Your task to perform on an android device: Open CNN.com Image 0: 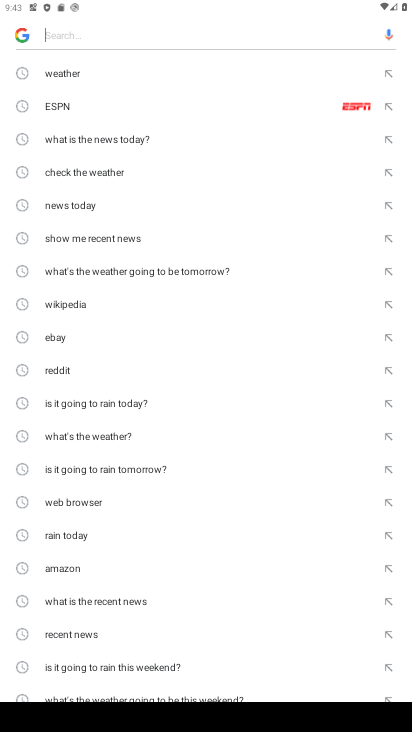
Step 0: press home button
Your task to perform on an android device: Open CNN.com Image 1: 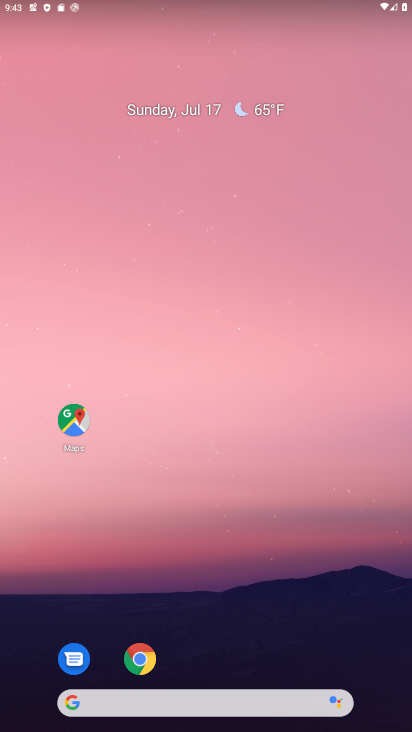
Step 1: click (185, 712)
Your task to perform on an android device: Open CNN.com Image 2: 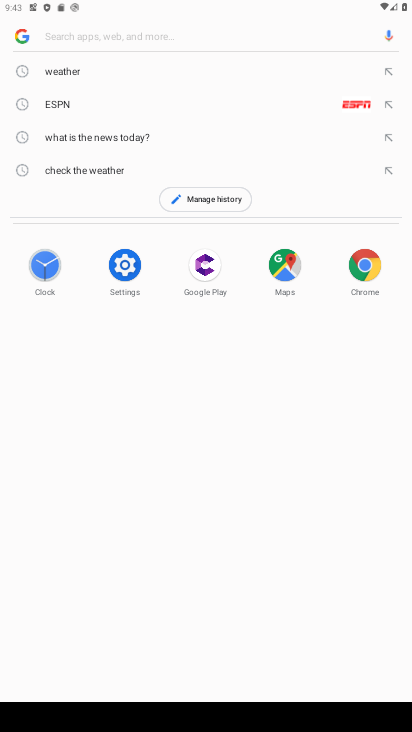
Step 2: type "cnn.com"
Your task to perform on an android device: Open CNN.com Image 3: 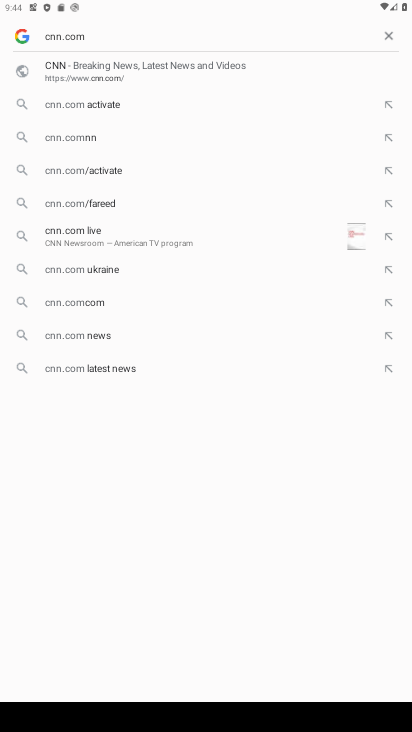
Step 3: click (76, 62)
Your task to perform on an android device: Open CNN.com Image 4: 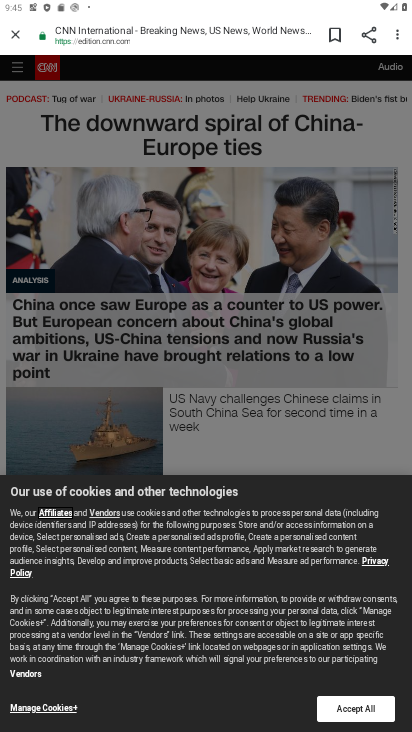
Step 4: task complete